Your task to perform on an android device: Search for seafood restaurants on Google Maps Image 0: 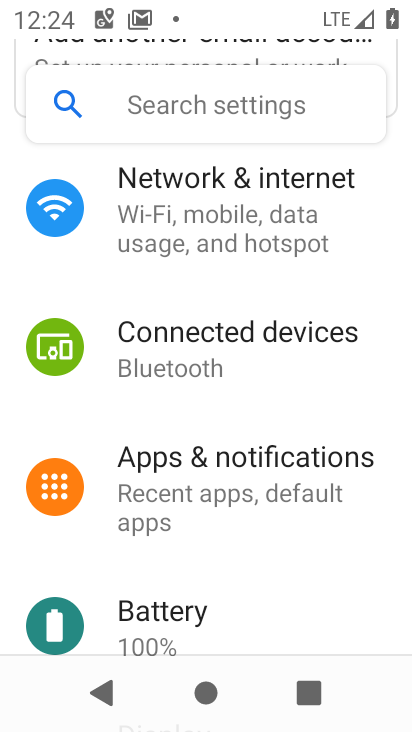
Step 0: press home button
Your task to perform on an android device: Search for seafood restaurants on Google Maps Image 1: 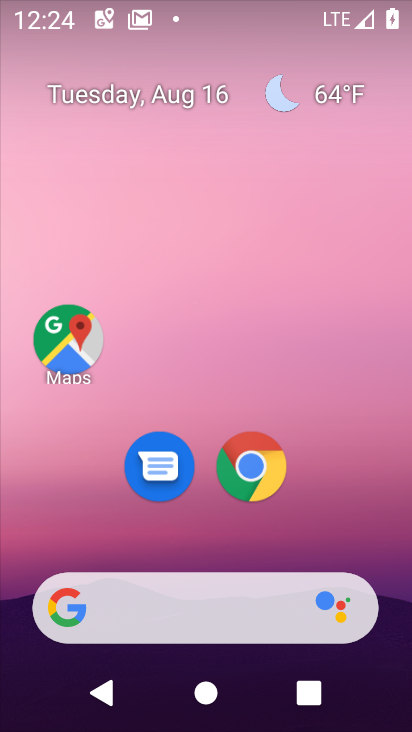
Step 1: drag from (174, 572) to (188, 272)
Your task to perform on an android device: Search for seafood restaurants on Google Maps Image 2: 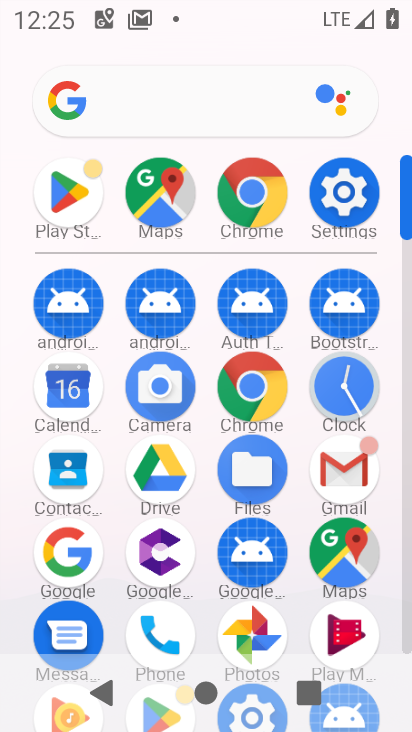
Step 2: click (332, 551)
Your task to perform on an android device: Search for seafood restaurants on Google Maps Image 3: 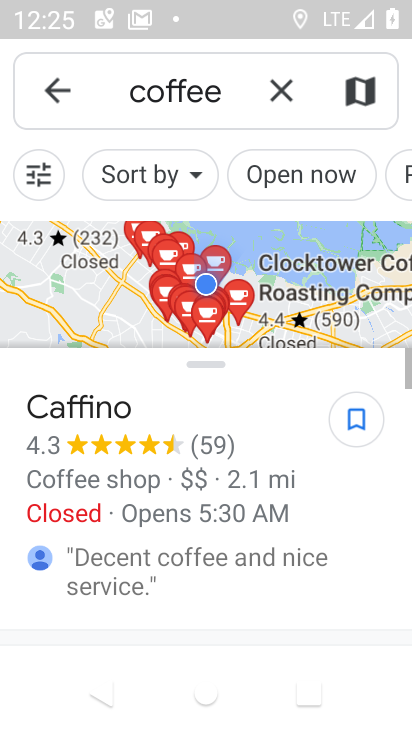
Step 3: click (284, 86)
Your task to perform on an android device: Search for seafood restaurants on Google Maps Image 4: 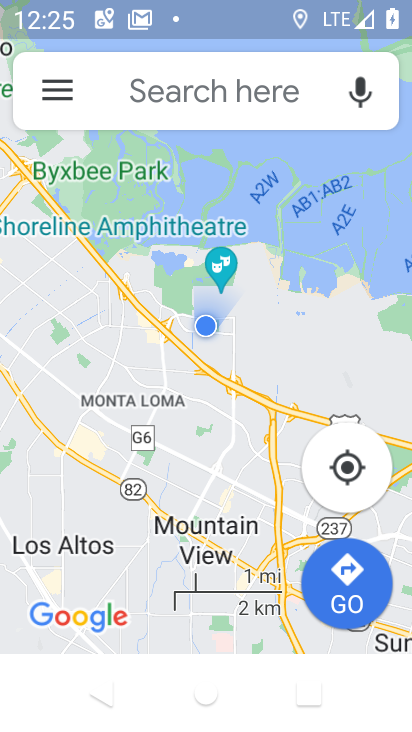
Step 4: click (142, 90)
Your task to perform on an android device: Search for seafood restaurants on Google Maps Image 5: 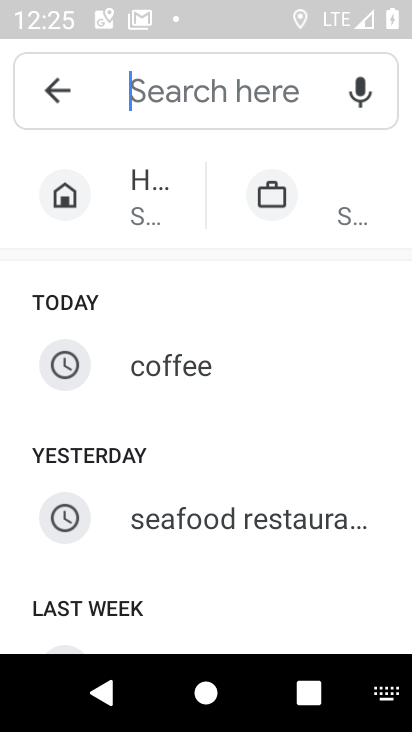
Step 5: click (200, 518)
Your task to perform on an android device: Search for seafood restaurants on Google Maps Image 6: 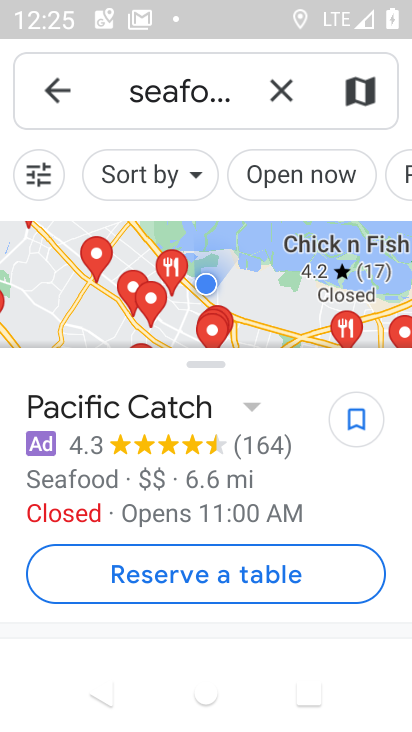
Step 6: task complete